Your task to perform on an android device: What is the recent news? Image 0: 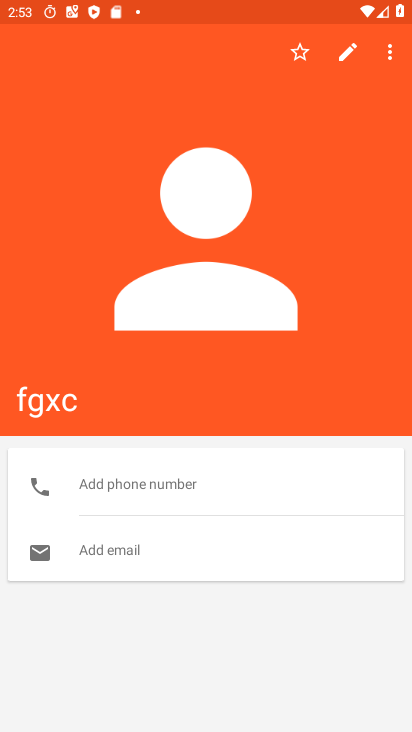
Step 0: press home button
Your task to perform on an android device: What is the recent news? Image 1: 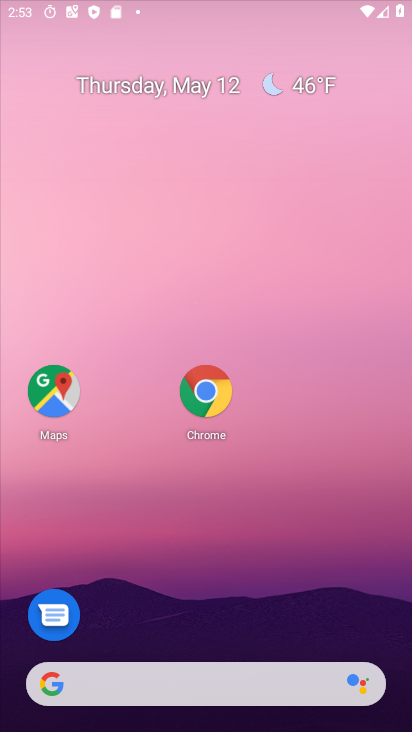
Step 1: drag from (203, 617) to (194, 50)
Your task to perform on an android device: What is the recent news? Image 2: 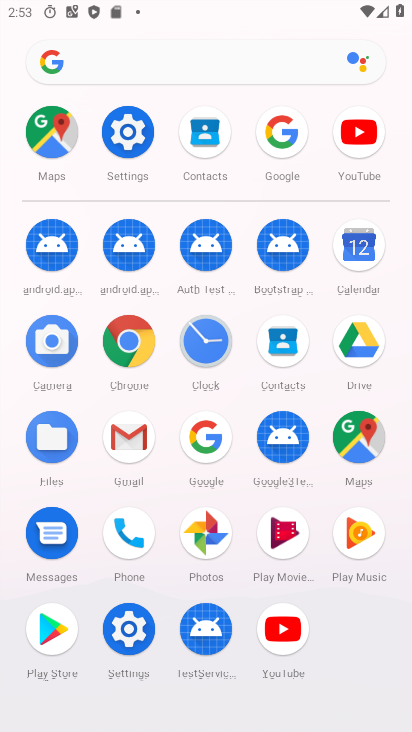
Step 2: click (208, 439)
Your task to perform on an android device: What is the recent news? Image 3: 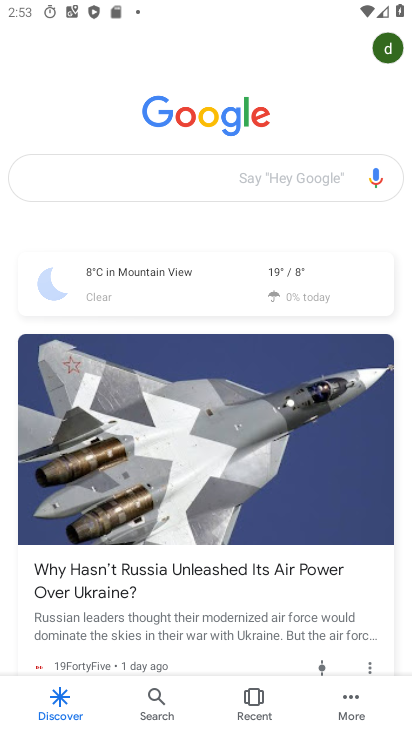
Step 3: click (162, 164)
Your task to perform on an android device: What is the recent news? Image 4: 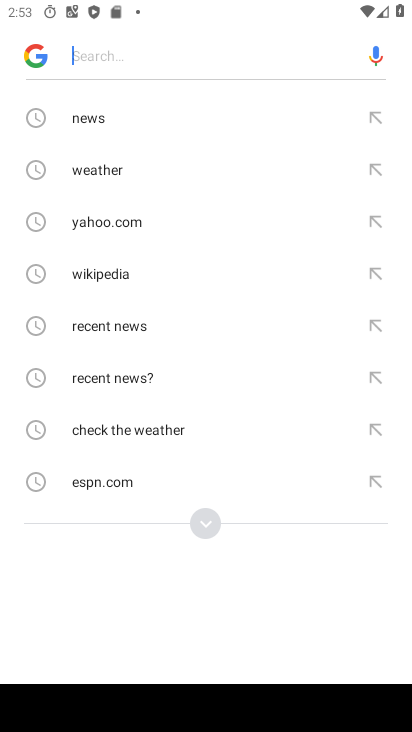
Step 4: click (88, 325)
Your task to perform on an android device: What is the recent news? Image 5: 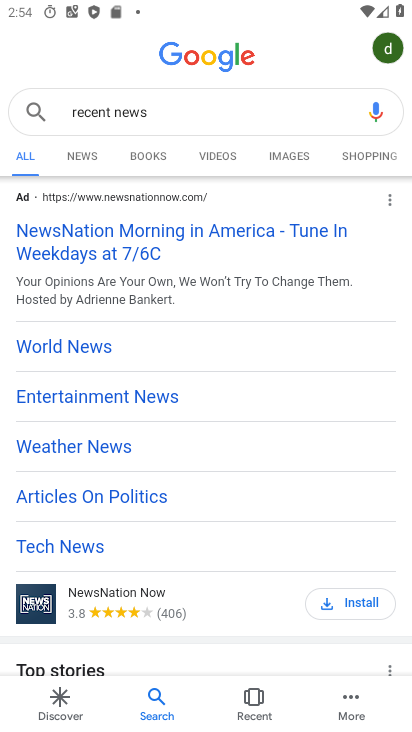
Step 5: task complete